Your task to perform on an android device: Go to internet settings Image 0: 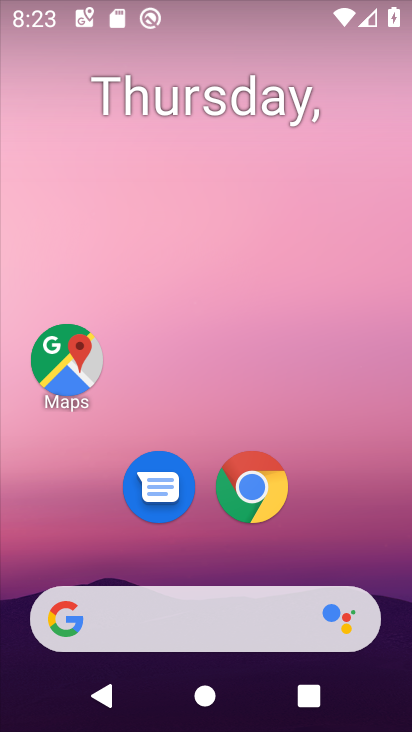
Step 0: drag from (215, 538) to (235, 74)
Your task to perform on an android device: Go to internet settings Image 1: 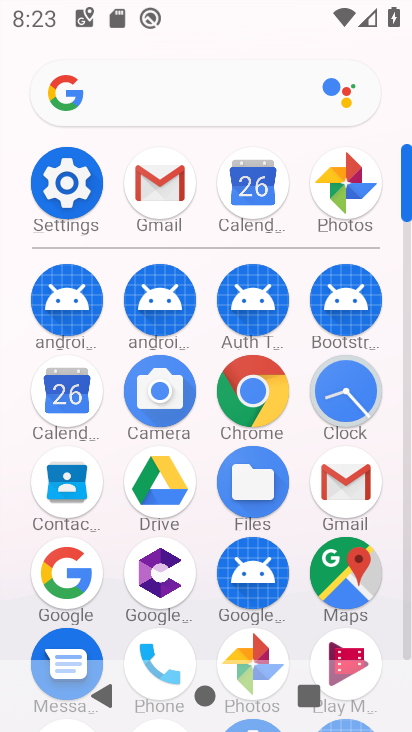
Step 1: click (69, 172)
Your task to perform on an android device: Go to internet settings Image 2: 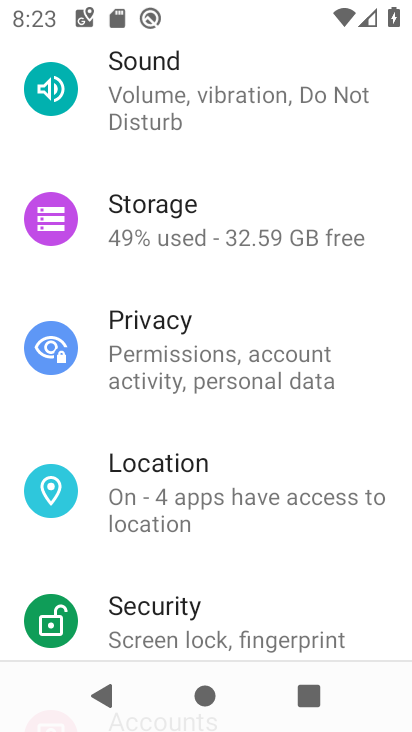
Step 2: drag from (218, 174) to (210, 681)
Your task to perform on an android device: Go to internet settings Image 3: 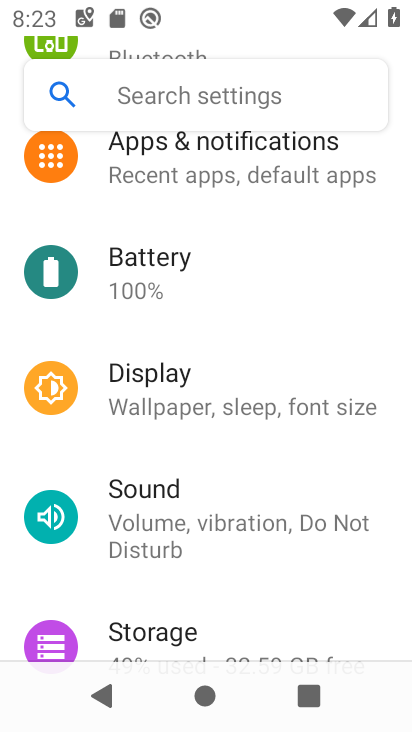
Step 3: drag from (213, 259) to (196, 730)
Your task to perform on an android device: Go to internet settings Image 4: 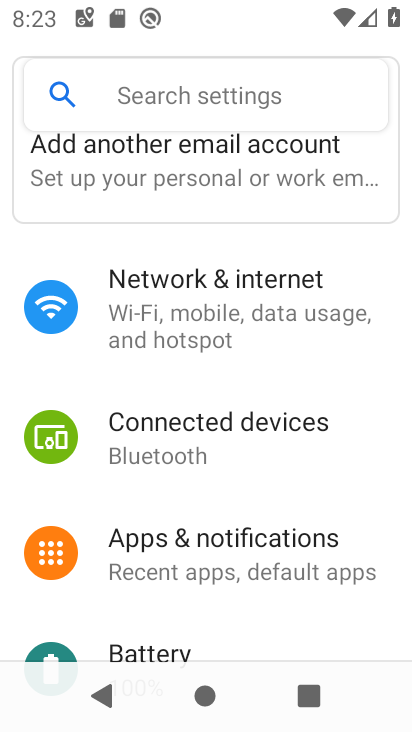
Step 4: click (230, 322)
Your task to perform on an android device: Go to internet settings Image 5: 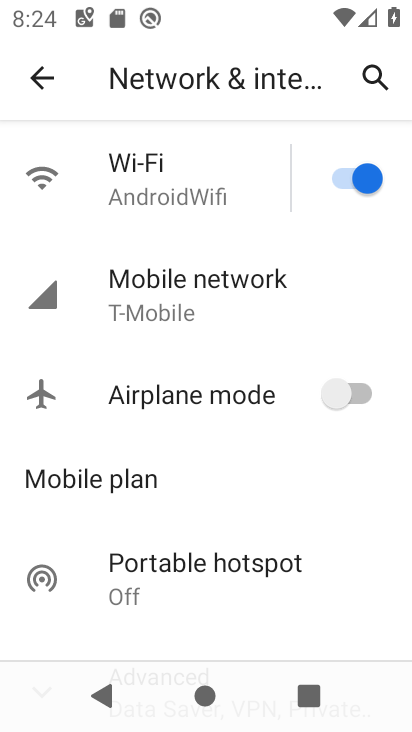
Step 5: task complete